Your task to perform on an android device: change notification settings in the gmail app Image 0: 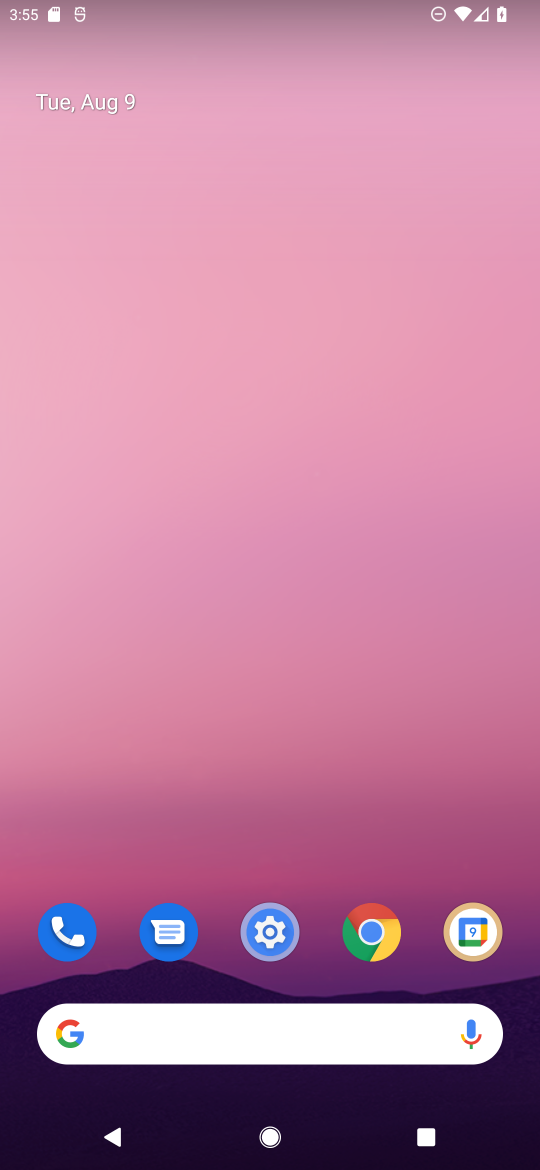
Step 0: drag from (54, 1123) to (225, 246)
Your task to perform on an android device: change notification settings in the gmail app Image 1: 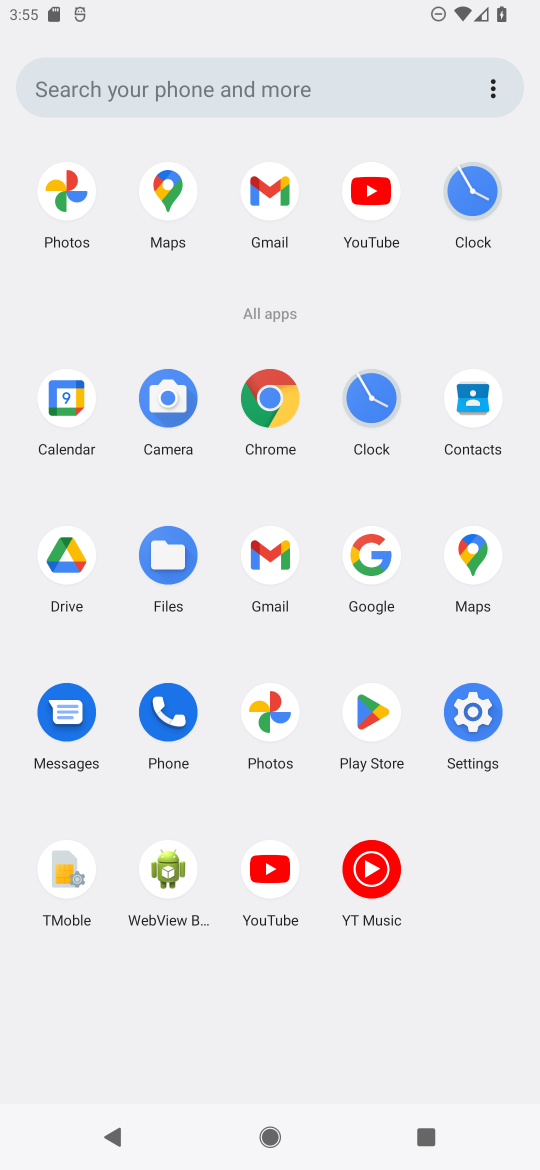
Step 1: click (265, 578)
Your task to perform on an android device: change notification settings in the gmail app Image 2: 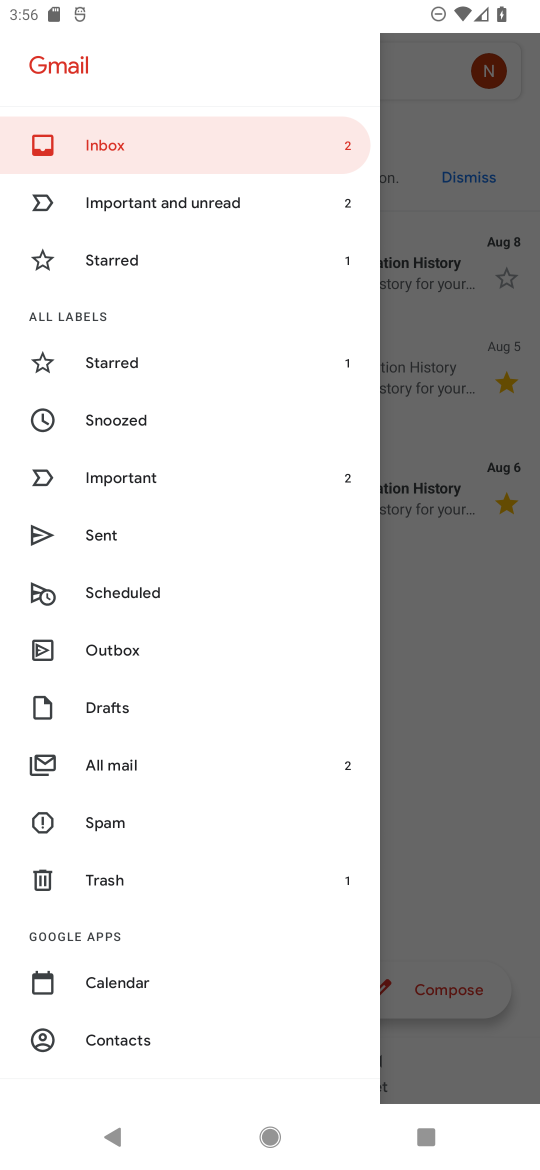
Step 2: drag from (275, 987) to (284, 371)
Your task to perform on an android device: change notification settings in the gmail app Image 3: 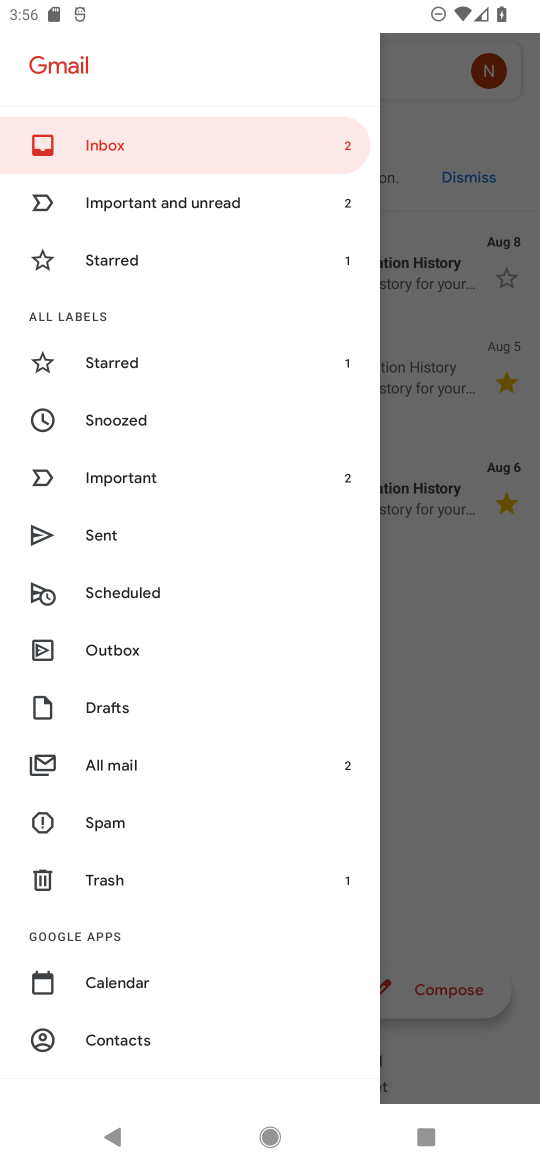
Step 3: drag from (238, 1051) to (234, 321)
Your task to perform on an android device: change notification settings in the gmail app Image 4: 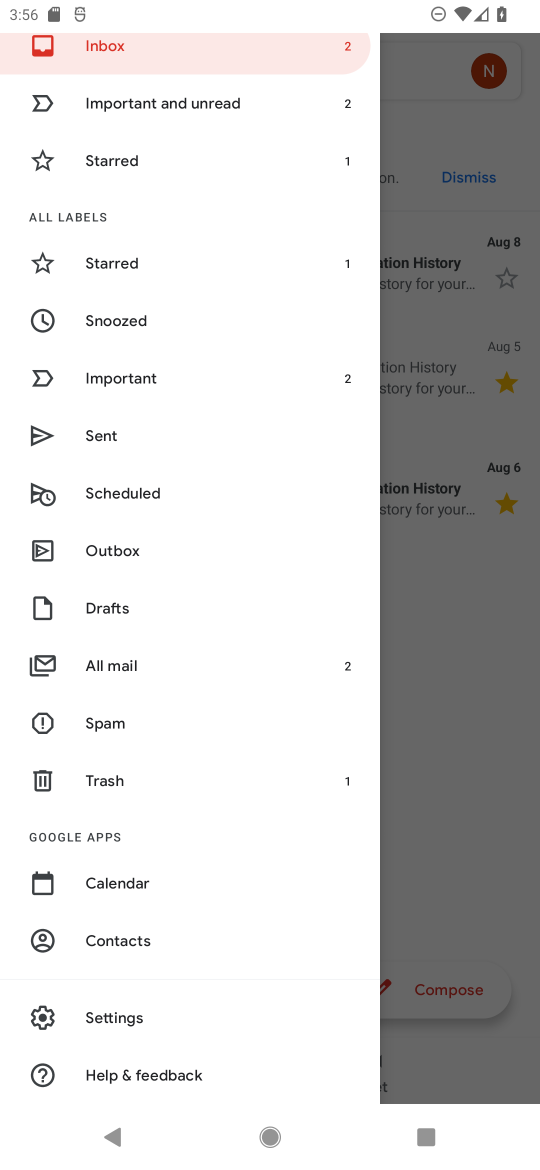
Step 4: click (116, 1015)
Your task to perform on an android device: change notification settings in the gmail app Image 5: 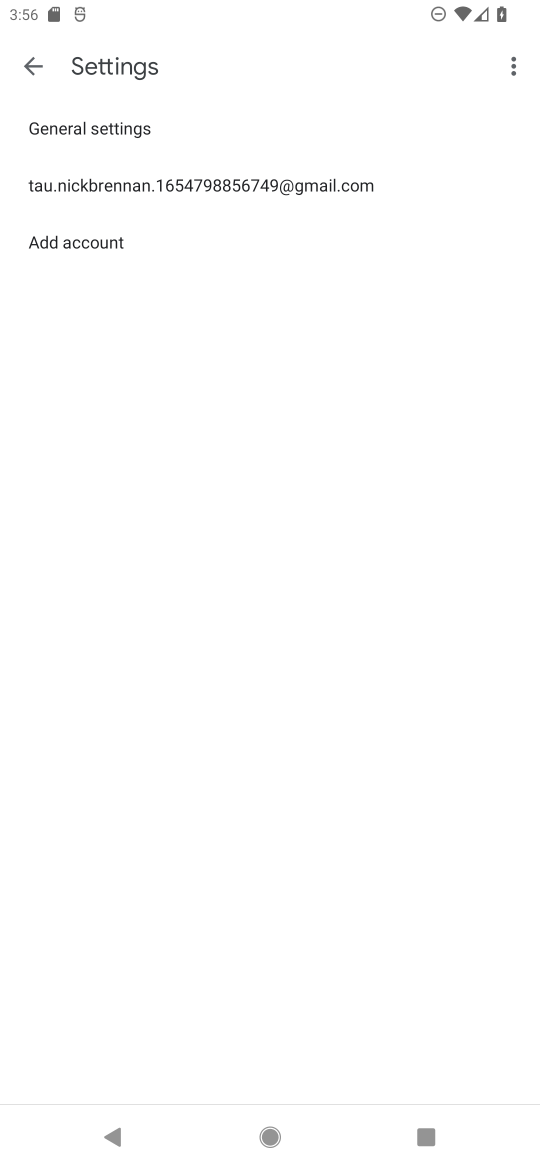
Step 5: click (197, 189)
Your task to perform on an android device: change notification settings in the gmail app Image 6: 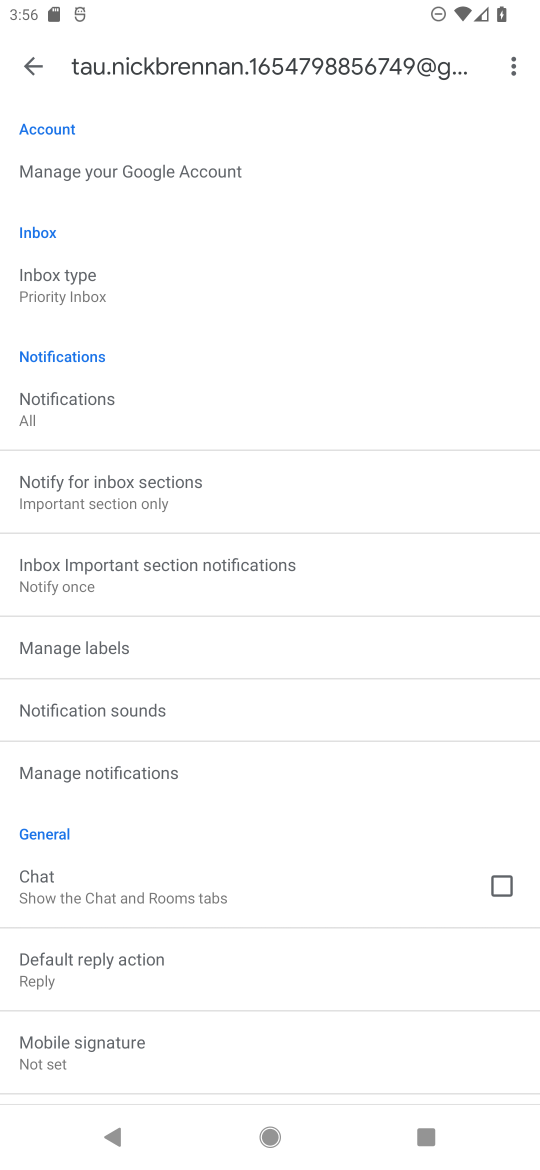
Step 6: click (84, 407)
Your task to perform on an android device: change notification settings in the gmail app Image 7: 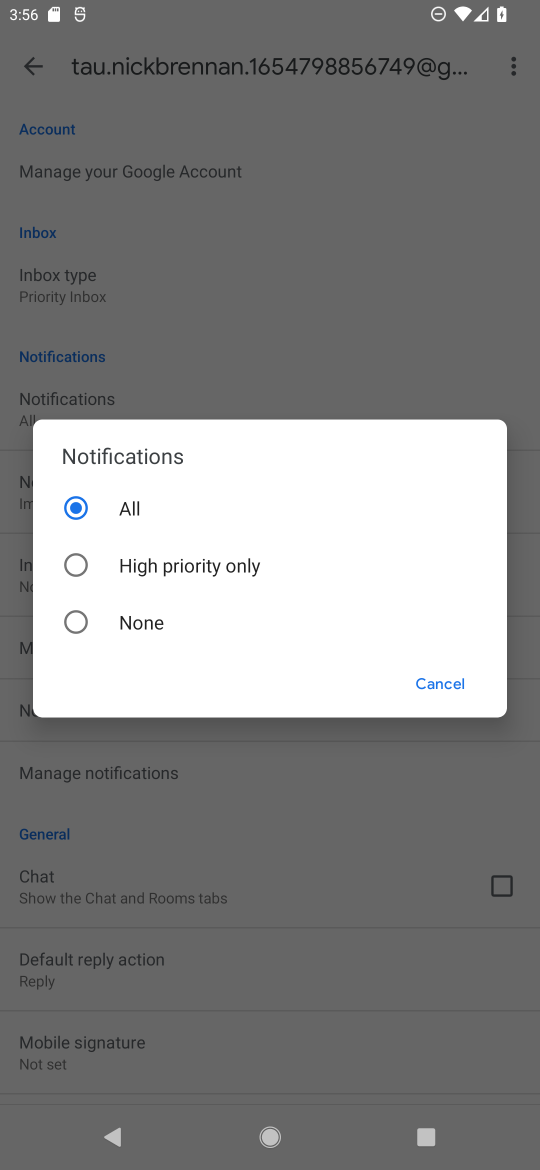
Step 7: task complete